Your task to perform on an android device: manage bookmarks in the chrome app Image 0: 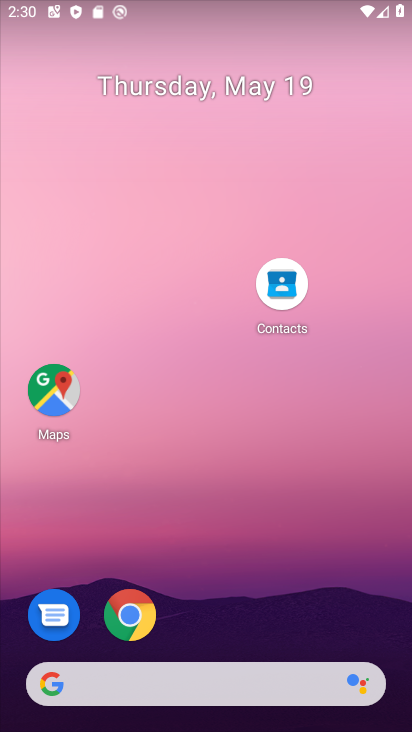
Step 0: drag from (238, 640) to (261, 234)
Your task to perform on an android device: manage bookmarks in the chrome app Image 1: 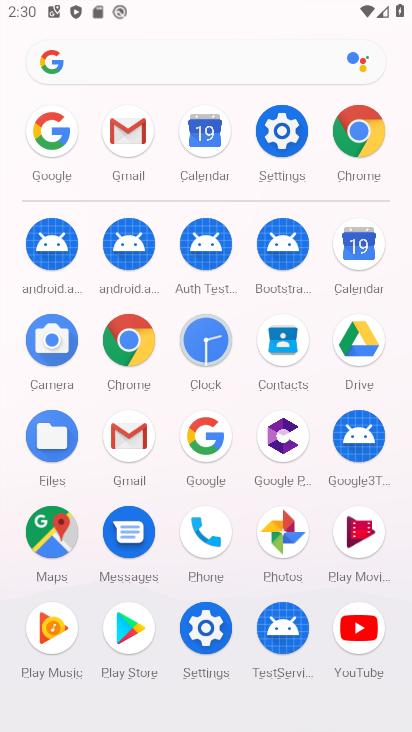
Step 1: click (130, 343)
Your task to perform on an android device: manage bookmarks in the chrome app Image 2: 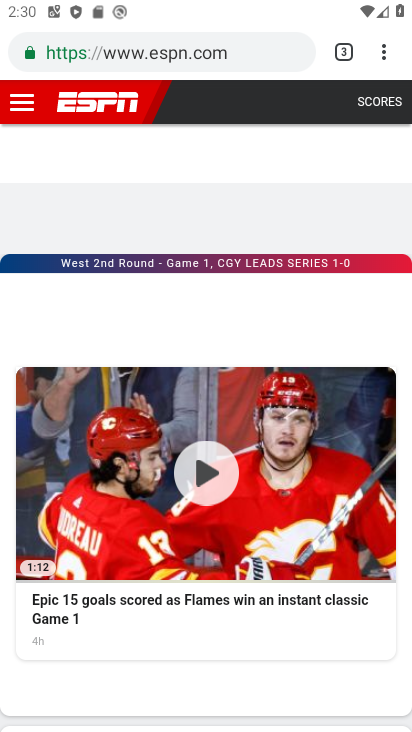
Step 2: click (388, 52)
Your task to perform on an android device: manage bookmarks in the chrome app Image 3: 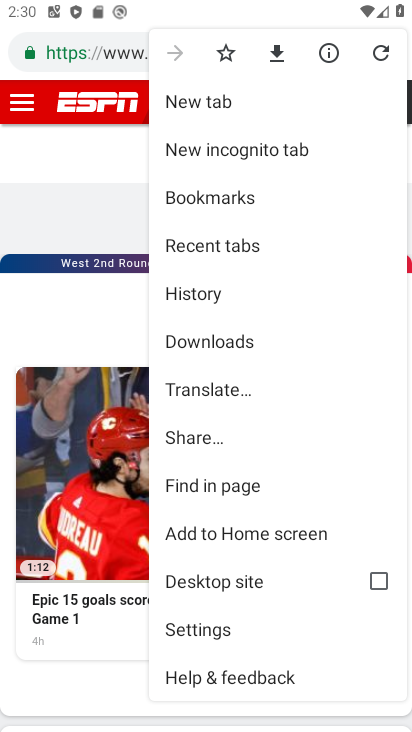
Step 3: click (260, 199)
Your task to perform on an android device: manage bookmarks in the chrome app Image 4: 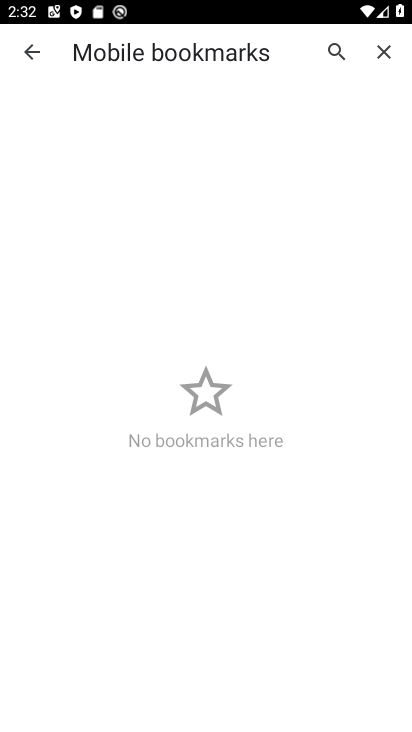
Step 4: task complete